Your task to perform on an android device: turn on improve location accuracy Image 0: 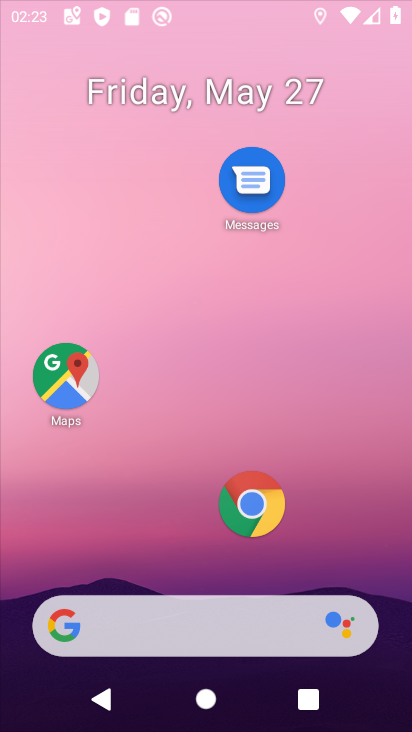
Step 0: click (170, 244)
Your task to perform on an android device: turn on improve location accuracy Image 1: 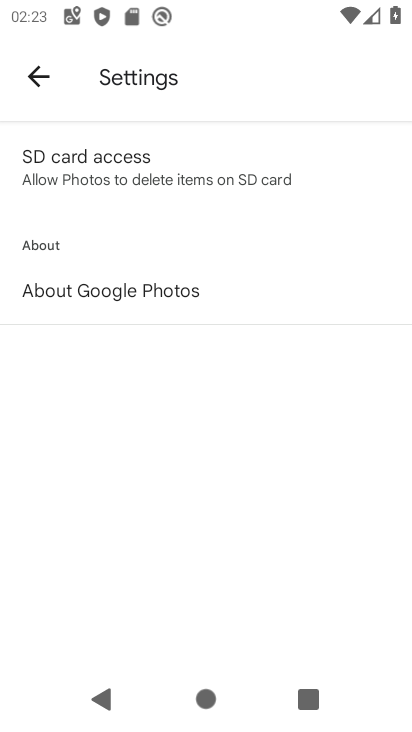
Step 1: click (297, 500)
Your task to perform on an android device: turn on improve location accuracy Image 2: 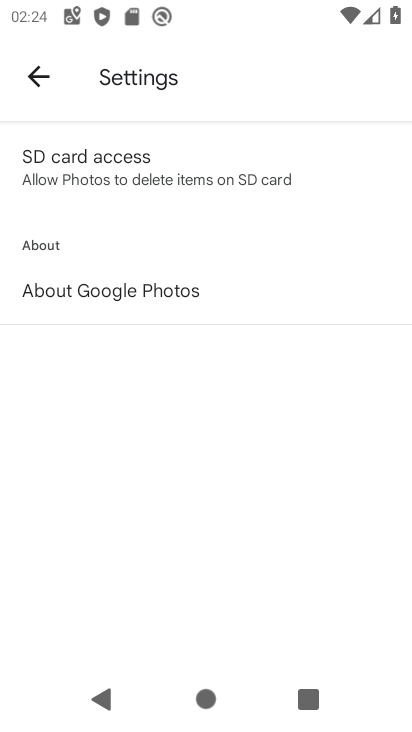
Step 2: press home button
Your task to perform on an android device: turn on improve location accuracy Image 3: 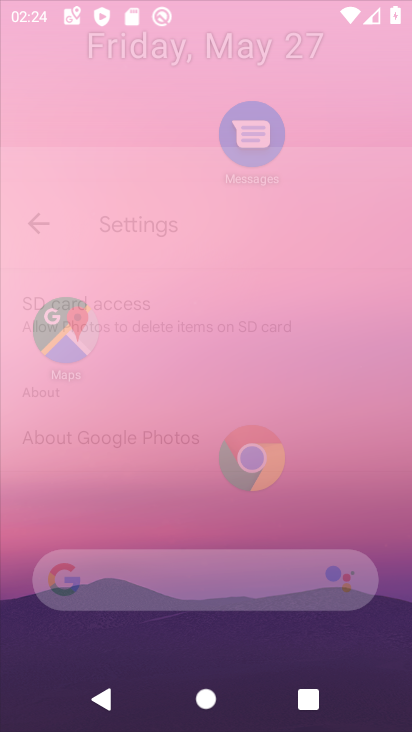
Step 3: drag from (189, 561) to (222, 22)
Your task to perform on an android device: turn on improve location accuracy Image 4: 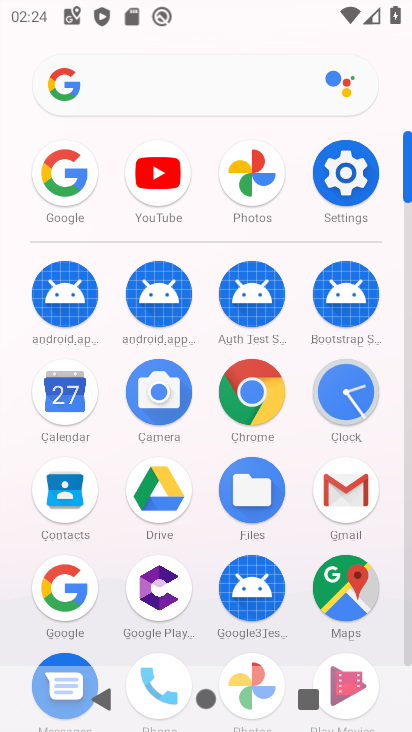
Step 4: click (356, 164)
Your task to perform on an android device: turn on improve location accuracy Image 5: 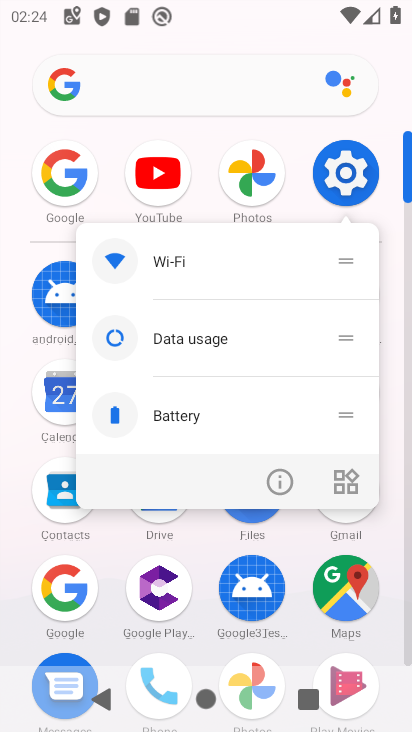
Step 5: click (289, 482)
Your task to perform on an android device: turn on improve location accuracy Image 6: 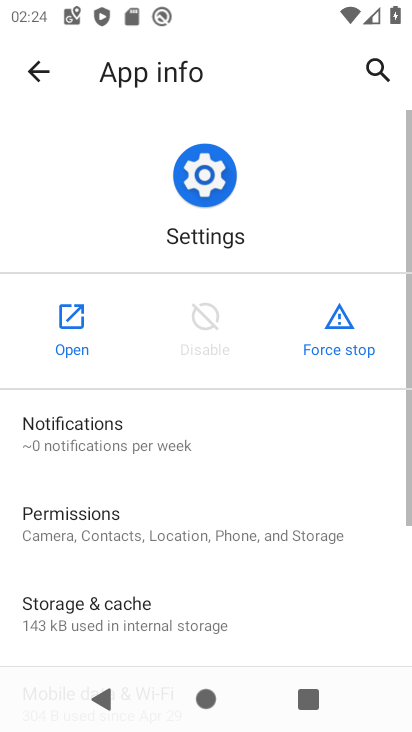
Step 6: click (81, 318)
Your task to perform on an android device: turn on improve location accuracy Image 7: 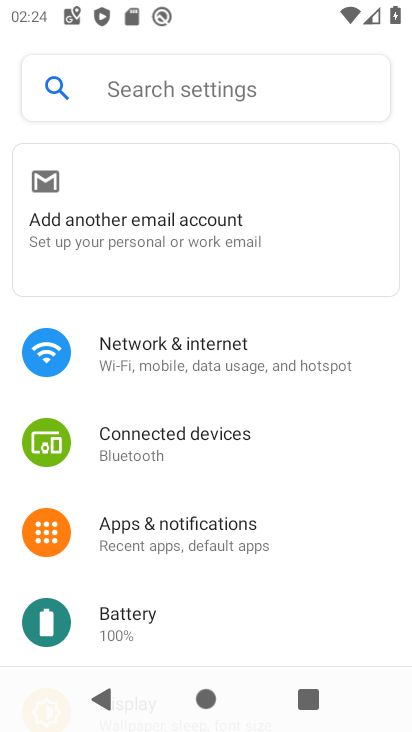
Step 7: drag from (271, 551) to (301, 80)
Your task to perform on an android device: turn on improve location accuracy Image 8: 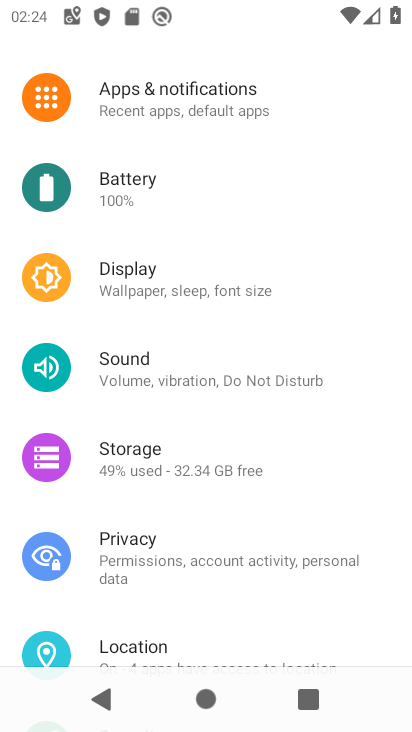
Step 8: drag from (224, 463) to (323, 192)
Your task to perform on an android device: turn on improve location accuracy Image 9: 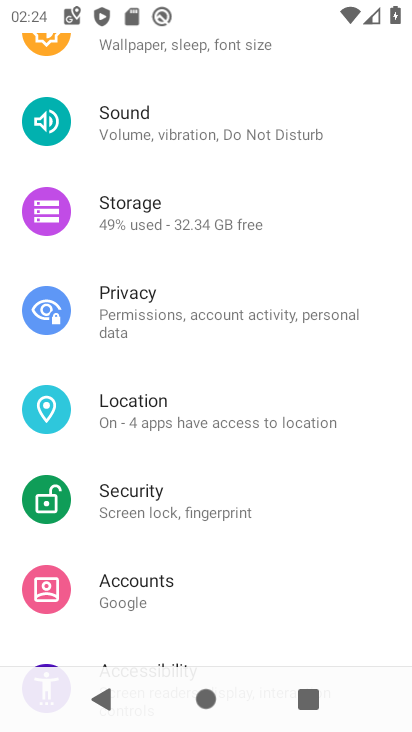
Step 9: click (190, 409)
Your task to perform on an android device: turn on improve location accuracy Image 10: 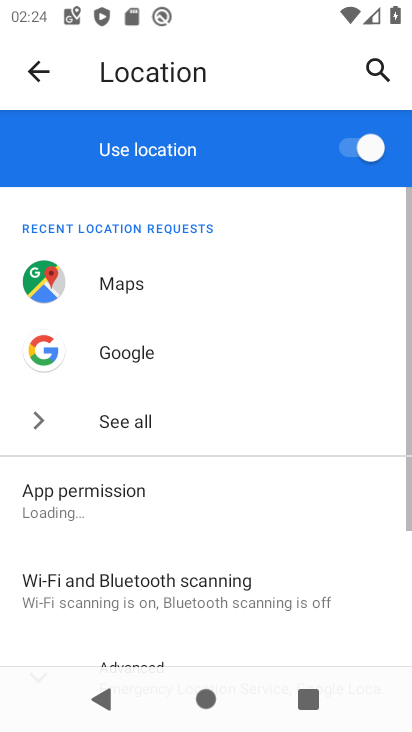
Step 10: drag from (293, 533) to (334, 127)
Your task to perform on an android device: turn on improve location accuracy Image 11: 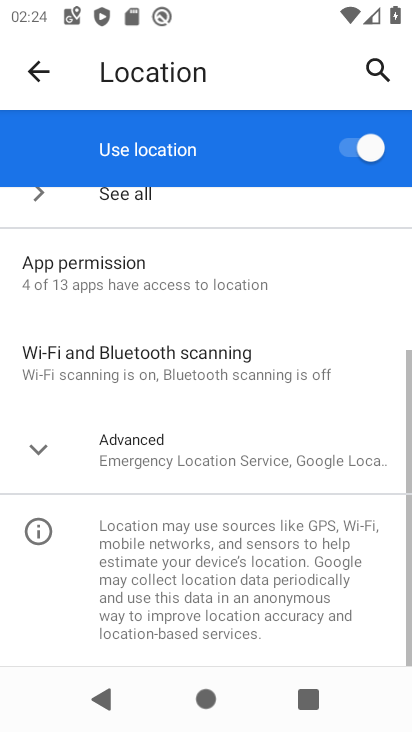
Step 11: click (206, 445)
Your task to perform on an android device: turn on improve location accuracy Image 12: 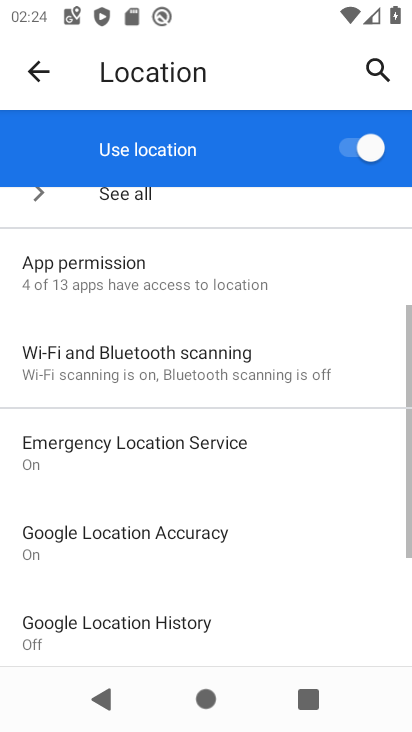
Step 12: drag from (284, 466) to (337, 161)
Your task to perform on an android device: turn on improve location accuracy Image 13: 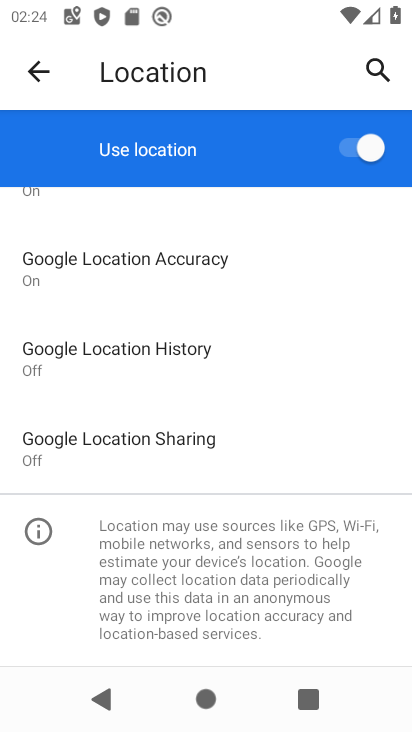
Step 13: click (231, 261)
Your task to perform on an android device: turn on improve location accuracy Image 14: 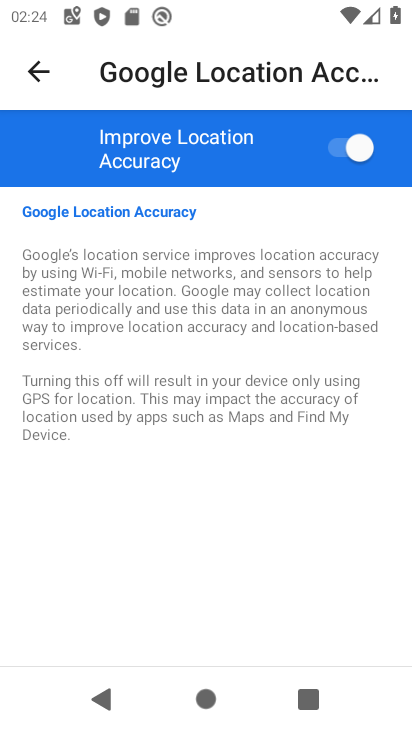
Step 14: task complete